Your task to perform on an android device: delete browsing data in the chrome app Image 0: 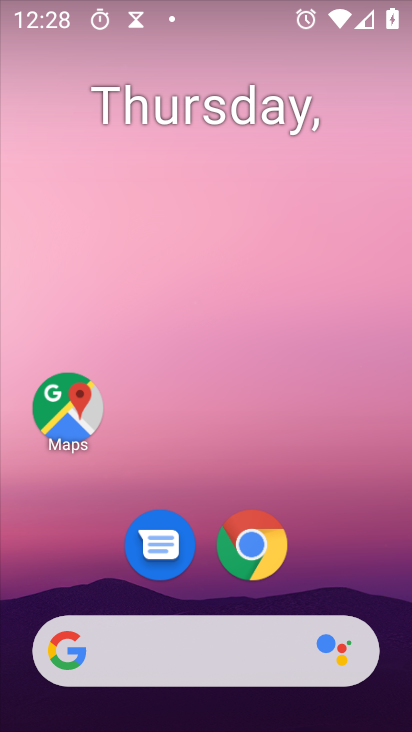
Step 0: press home button
Your task to perform on an android device: delete browsing data in the chrome app Image 1: 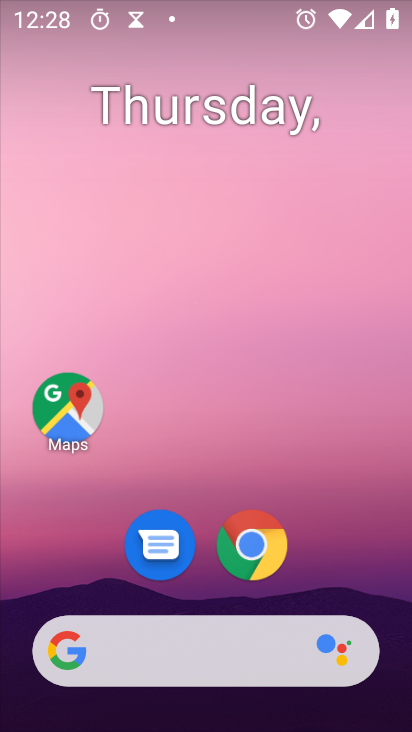
Step 1: click (267, 548)
Your task to perform on an android device: delete browsing data in the chrome app Image 2: 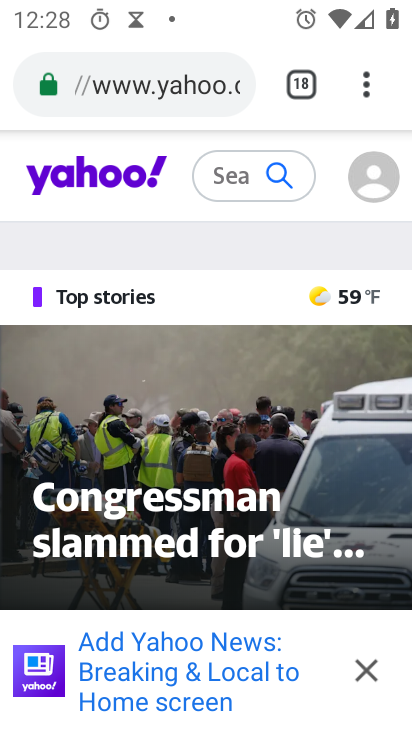
Step 2: drag from (367, 95) to (271, 613)
Your task to perform on an android device: delete browsing data in the chrome app Image 3: 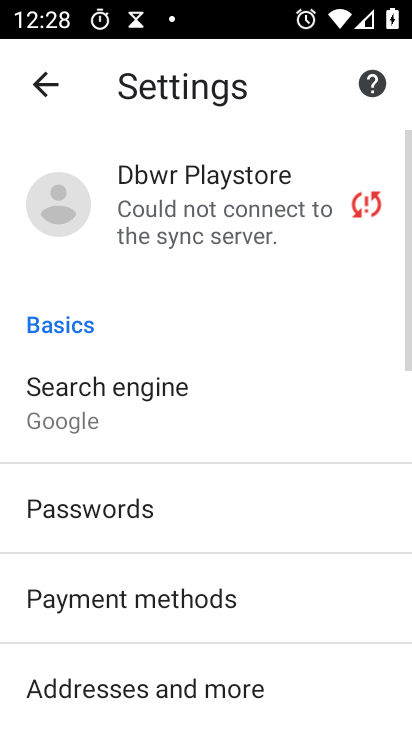
Step 3: drag from (287, 660) to (349, 166)
Your task to perform on an android device: delete browsing data in the chrome app Image 4: 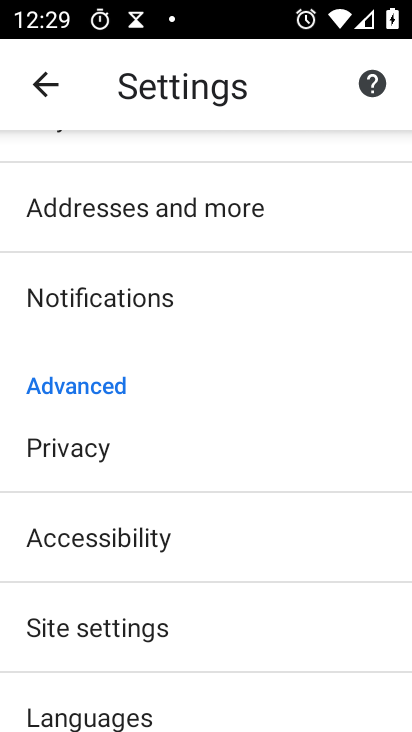
Step 4: click (80, 447)
Your task to perform on an android device: delete browsing data in the chrome app Image 5: 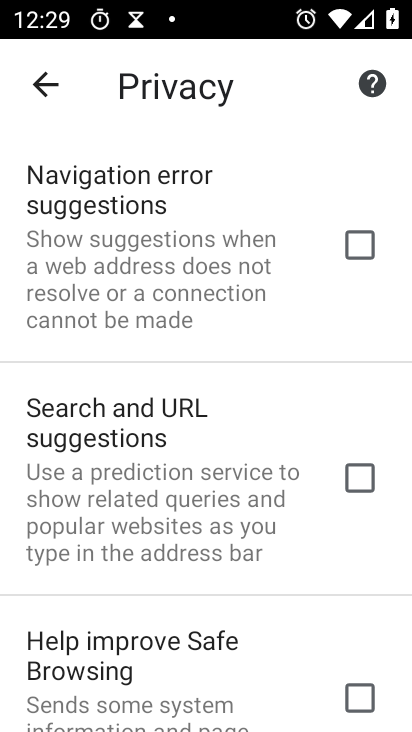
Step 5: drag from (217, 623) to (315, 165)
Your task to perform on an android device: delete browsing data in the chrome app Image 6: 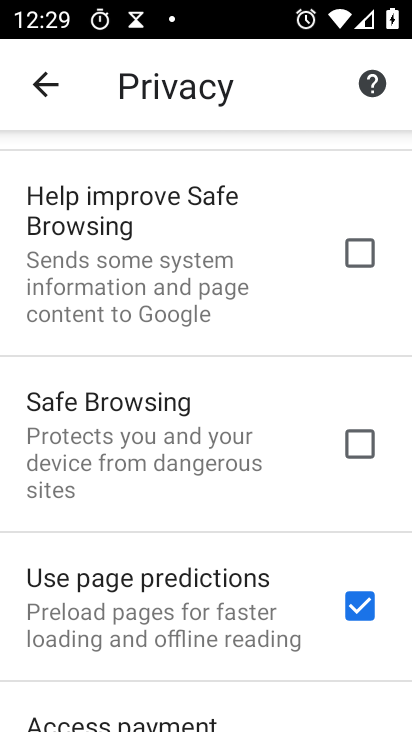
Step 6: drag from (211, 656) to (302, 187)
Your task to perform on an android device: delete browsing data in the chrome app Image 7: 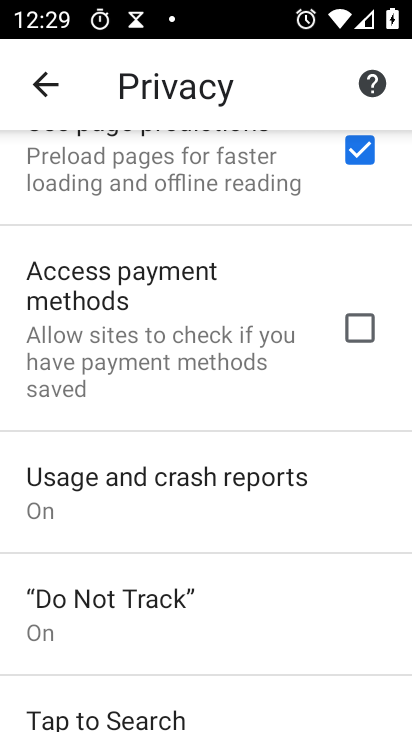
Step 7: drag from (259, 604) to (308, 145)
Your task to perform on an android device: delete browsing data in the chrome app Image 8: 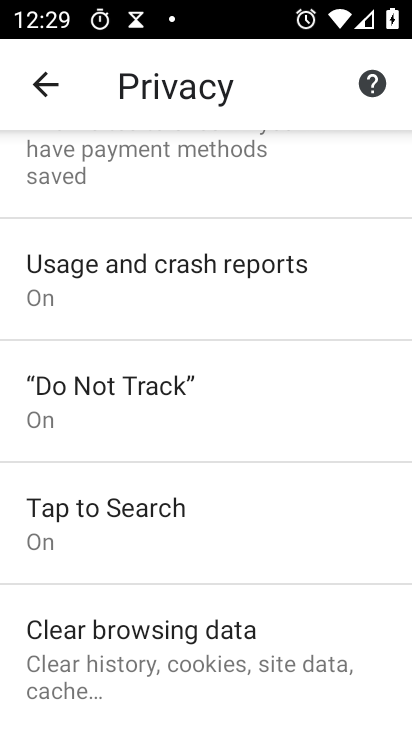
Step 8: click (205, 632)
Your task to perform on an android device: delete browsing data in the chrome app Image 9: 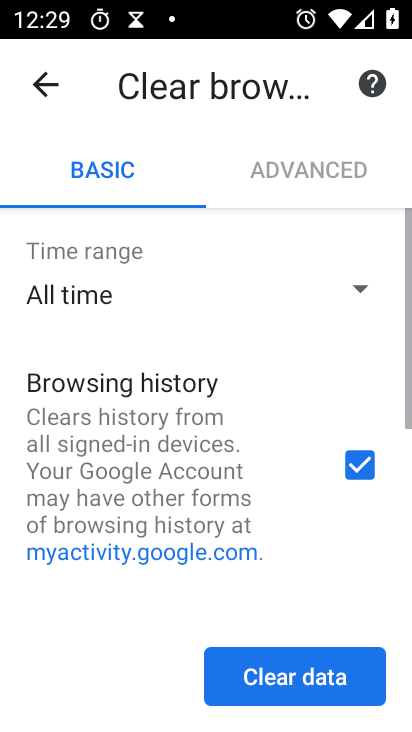
Step 9: drag from (227, 550) to (334, 217)
Your task to perform on an android device: delete browsing data in the chrome app Image 10: 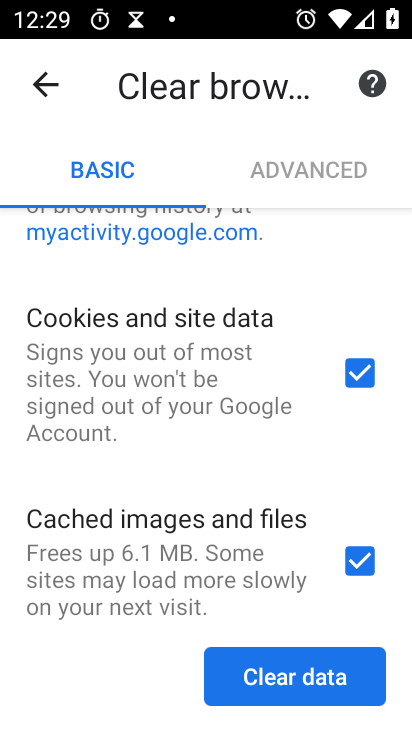
Step 10: drag from (282, 508) to (339, 256)
Your task to perform on an android device: delete browsing data in the chrome app Image 11: 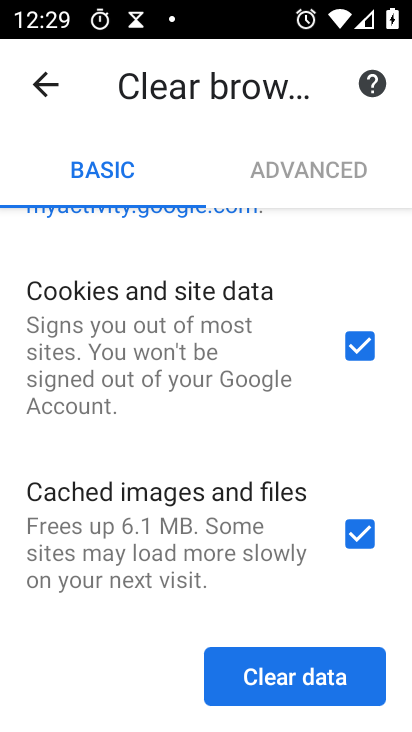
Step 11: drag from (231, 569) to (291, 294)
Your task to perform on an android device: delete browsing data in the chrome app Image 12: 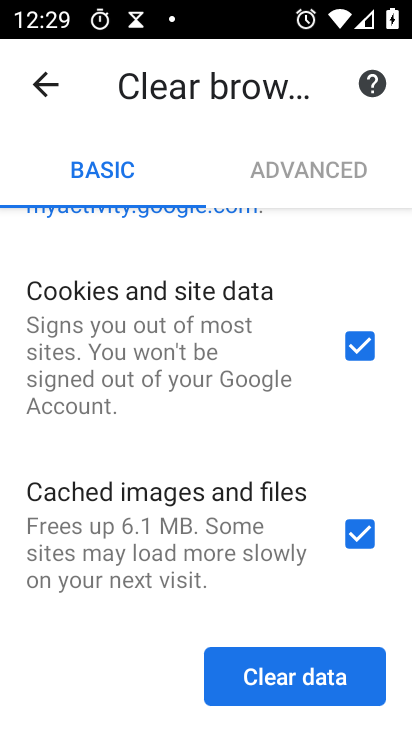
Step 12: click (312, 678)
Your task to perform on an android device: delete browsing data in the chrome app Image 13: 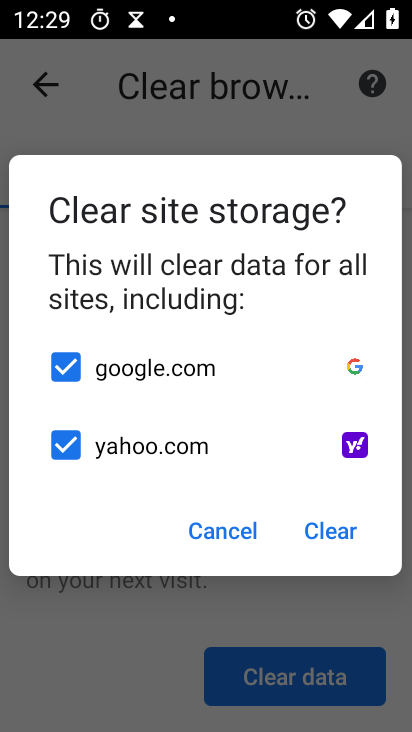
Step 13: click (332, 528)
Your task to perform on an android device: delete browsing data in the chrome app Image 14: 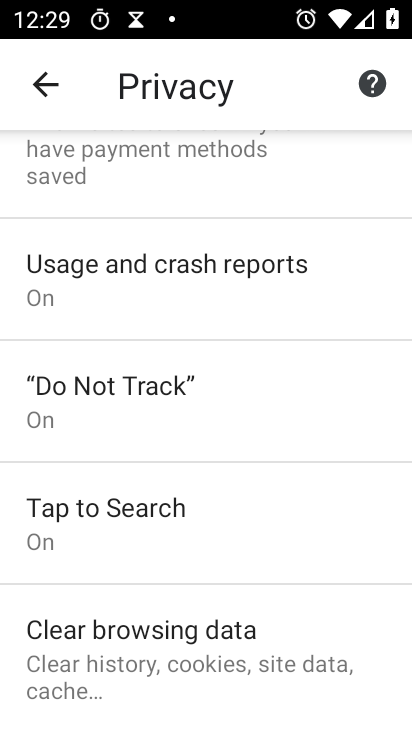
Step 14: task complete